Your task to perform on an android device: find snoozed emails in the gmail app Image 0: 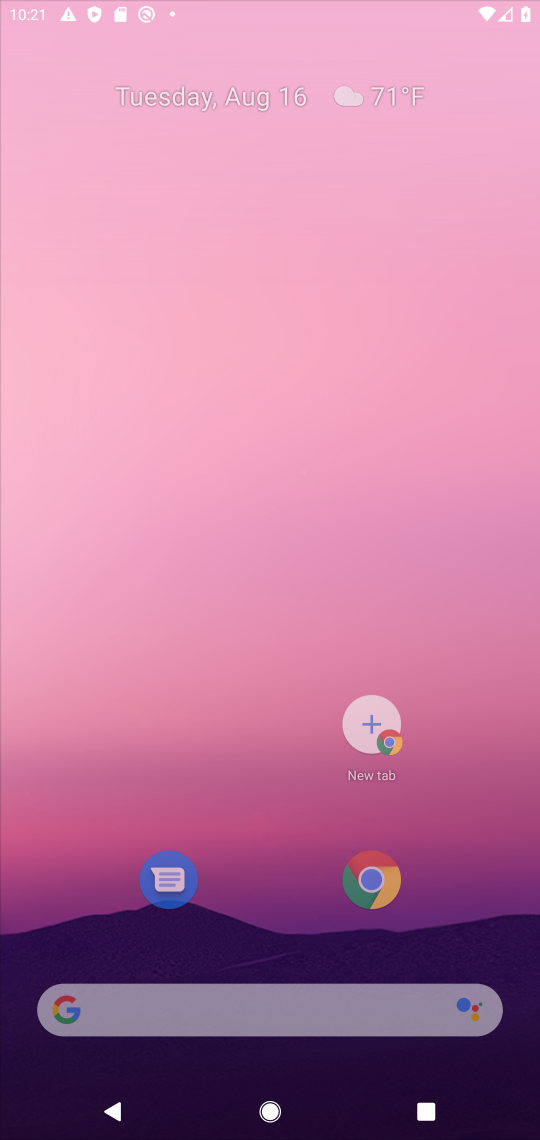
Step 0: drag from (170, 987) to (149, 278)
Your task to perform on an android device: find snoozed emails in the gmail app Image 1: 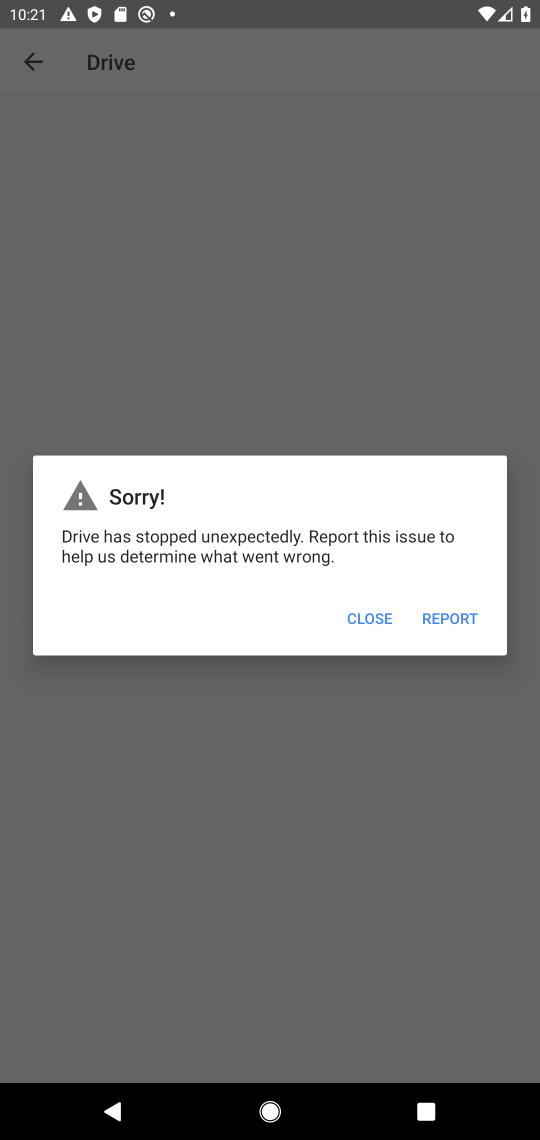
Step 1: press home button
Your task to perform on an android device: find snoozed emails in the gmail app Image 2: 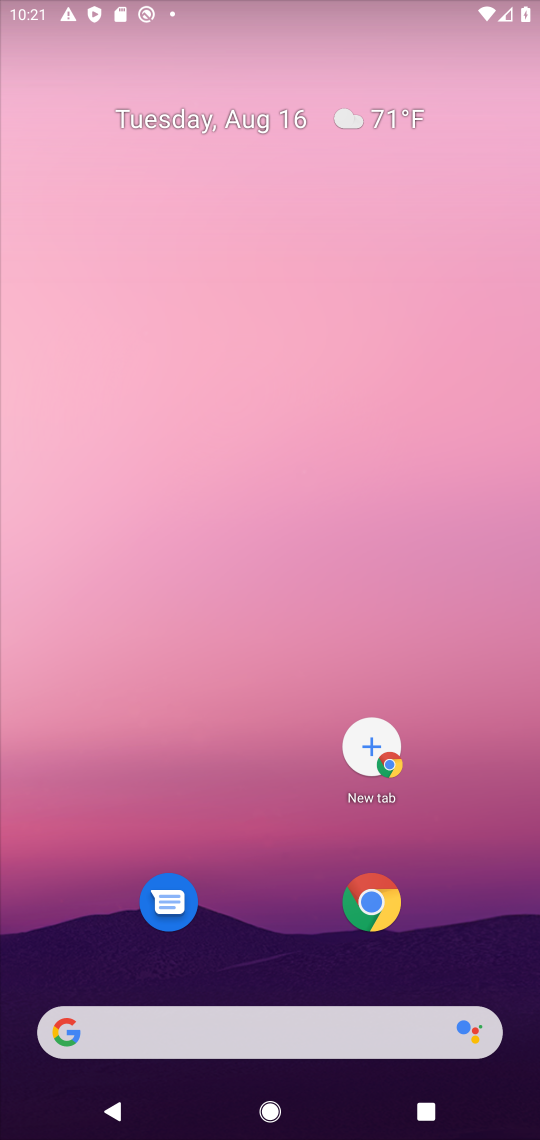
Step 2: drag from (173, 973) to (223, 269)
Your task to perform on an android device: find snoozed emails in the gmail app Image 3: 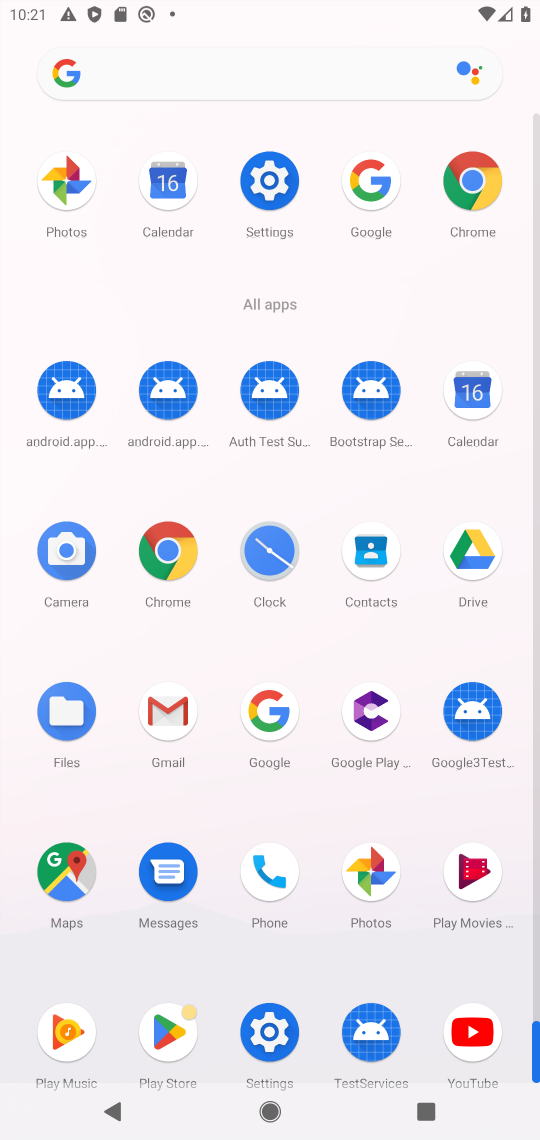
Step 3: click (151, 709)
Your task to perform on an android device: find snoozed emails in the gmail app Image 4: 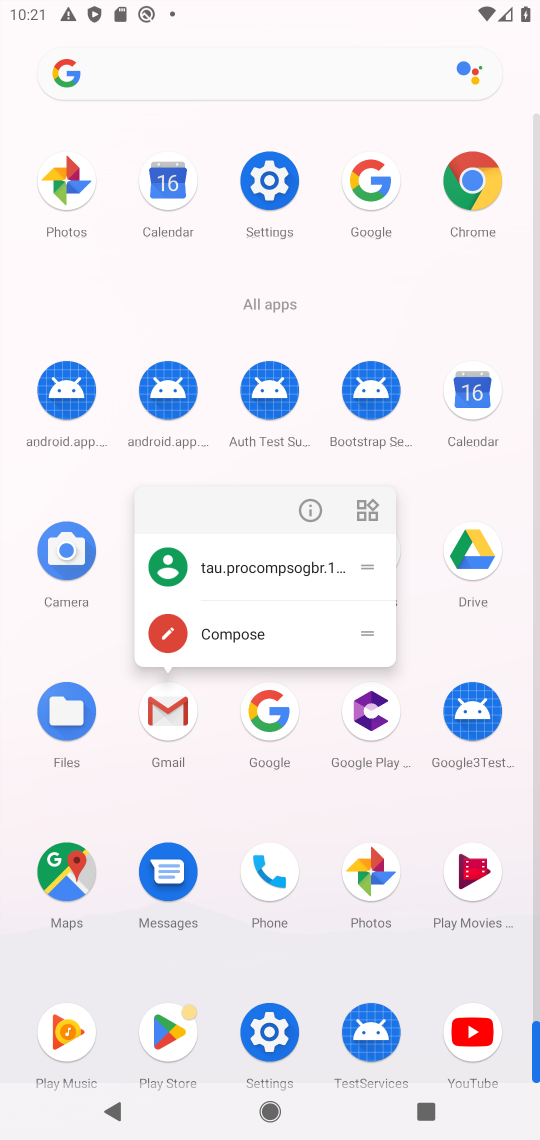
Step 4: click (157, 711)
Your task to perform on an android device: find snoozed emails in the gmail app Image 5: 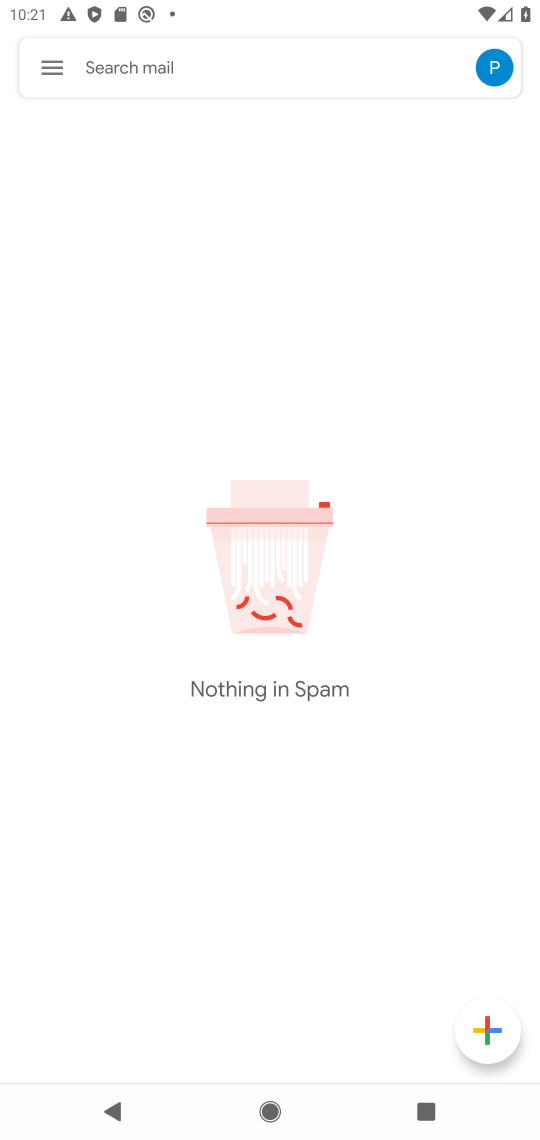
Step 5: click (47, 65)
Your task to perform on an android device: find snoozed emails in the gmail app Image 6: 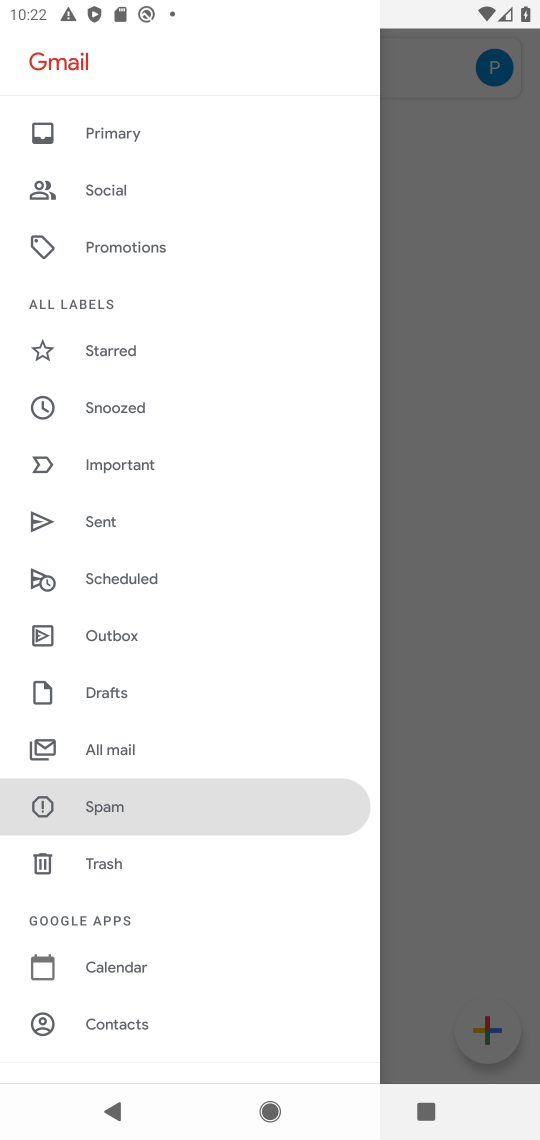
Step 6: click (114, 402)
Your task to perform on an android device: find snoozed emails in the gmail app Image 7: 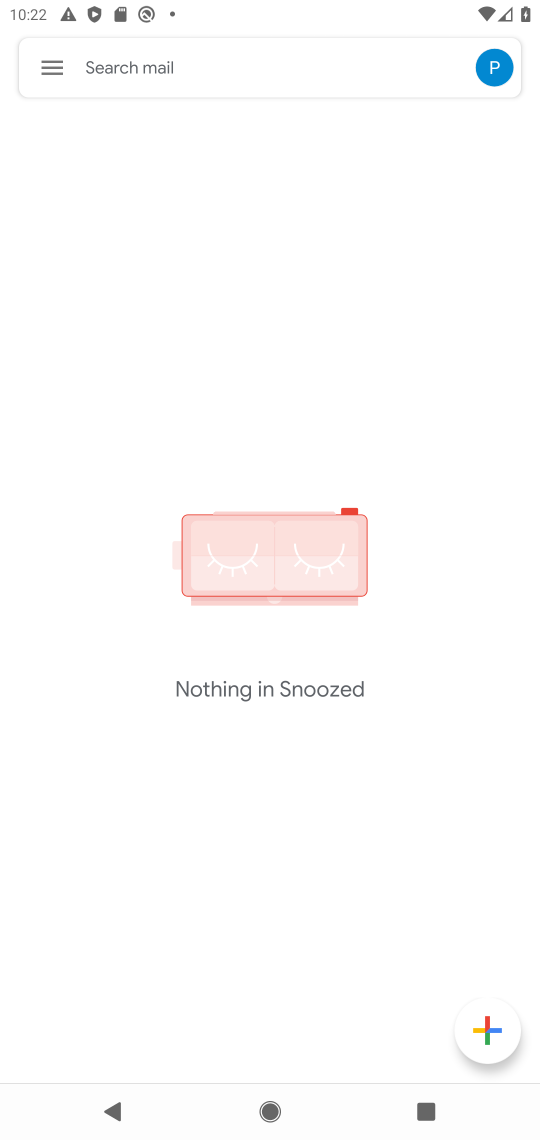
Step 7: task complete